Your task to perform on an android device: What is the news today? Image 0: 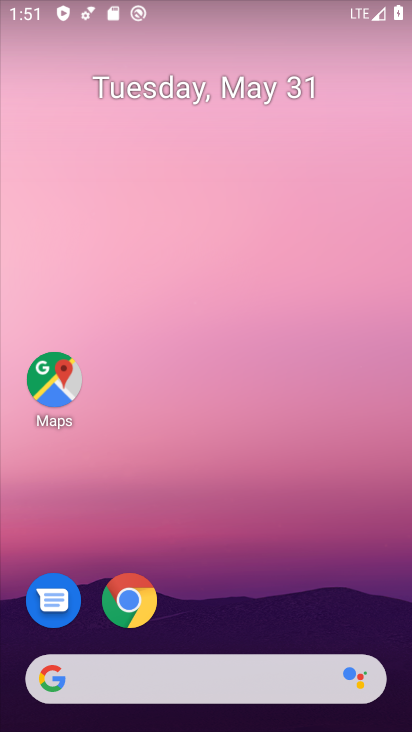
Step 0: drag from (215, 451) to (215, 73)
Your task to perform on an android device: What is the news today? Image 1: 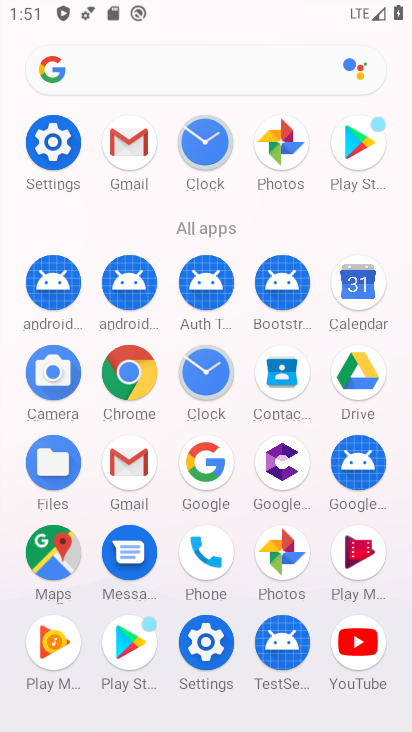
Step 1: task complete